Your task to perform on an android device: add a contact in the contacts app Image 0: 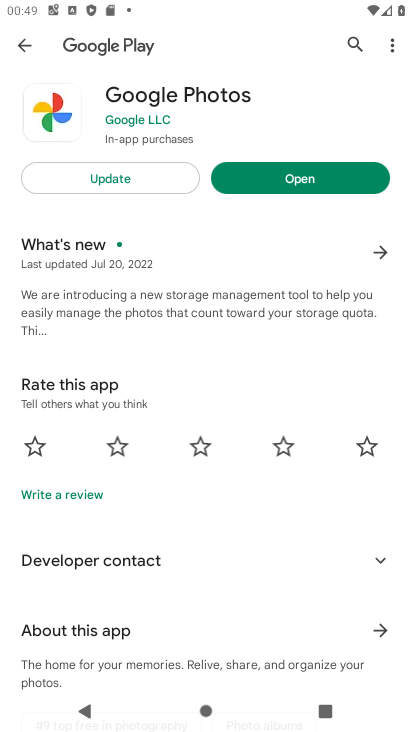
Step 0: press home button
Your task to perform on an android device: add a contact in the contacts app Image 1: 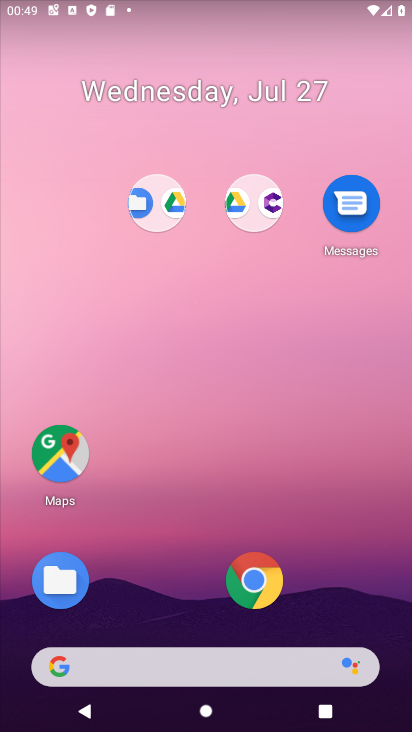
Step 1: drag from (157, 552) to (169, 75)
Your task to perform on an android device: add a contact in the contacts app Image 2: 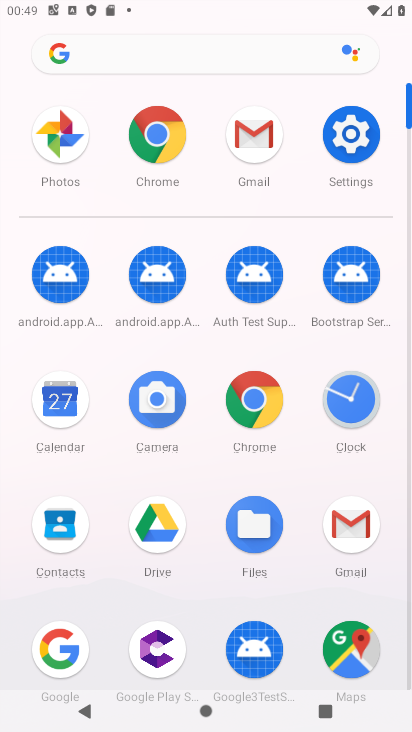
Step 2: click (80, 542)
Your task to perform on an android device: add a contact in the contacts app Image 3: 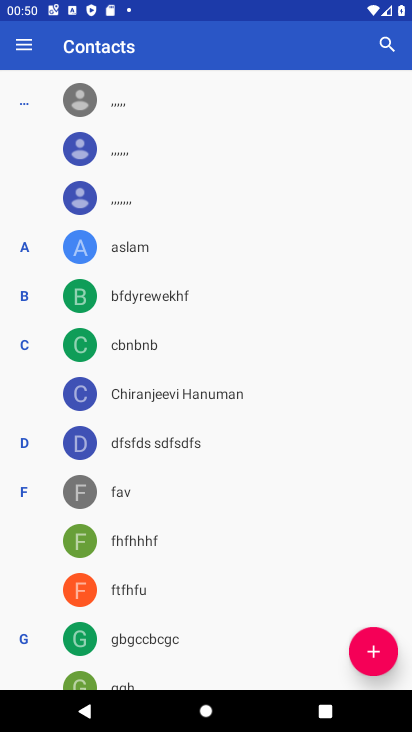
Step 3: click (384, 640)
Your task to perform on an android device: add a contact in the contacts app Image 4: 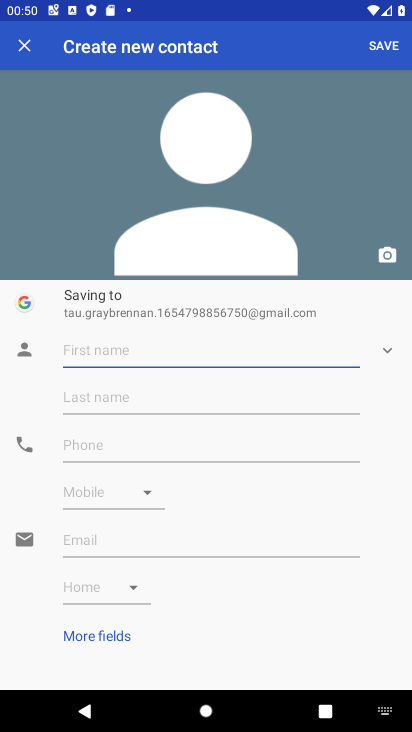
Step 4: type "iuhgfdx"
Your task to perform on an android device: add a contact in the contacts app Image 5: 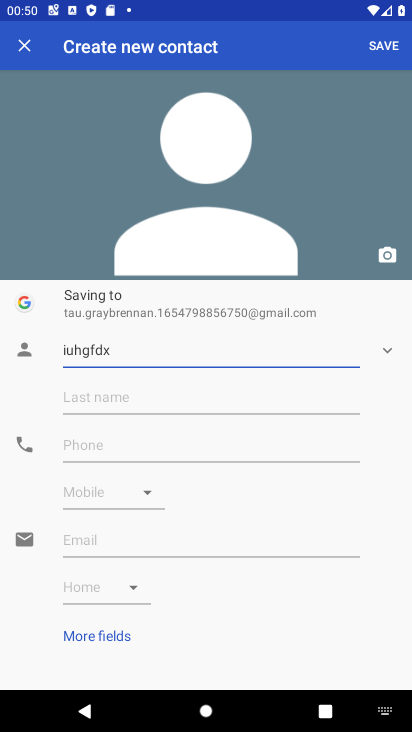
Step 5: click (242, 452)
Your task to perform on an android device: add a contact in the contacts app Image 6: 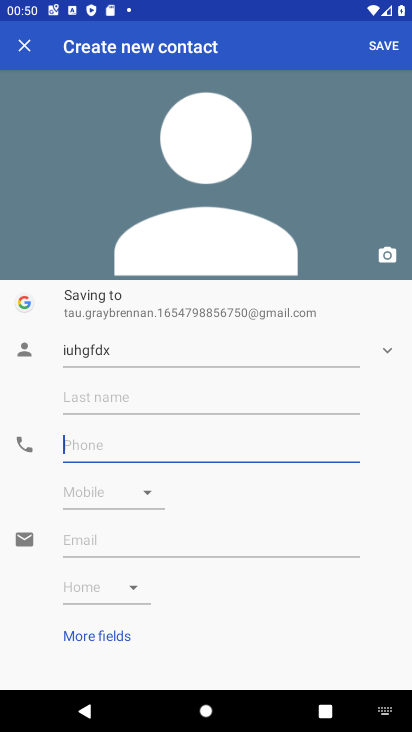
Step 6: type "9876543234567"
Your task to perform on an android device: add a contact in the contacts app Image 7: 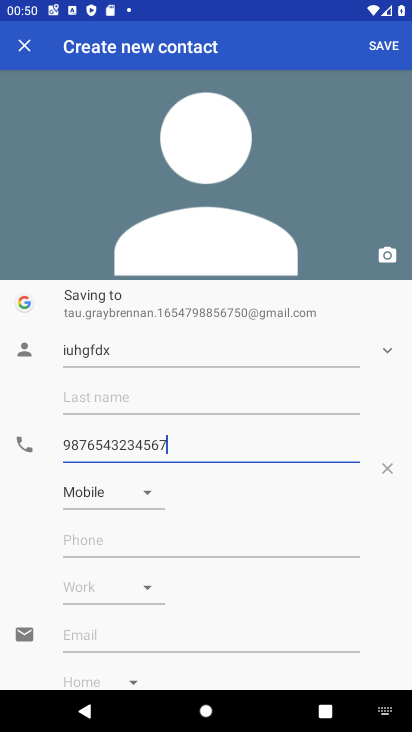
Step 7: click (392, 48)
Your task to perform on an android device: add a contact in the contacts app Image 8: 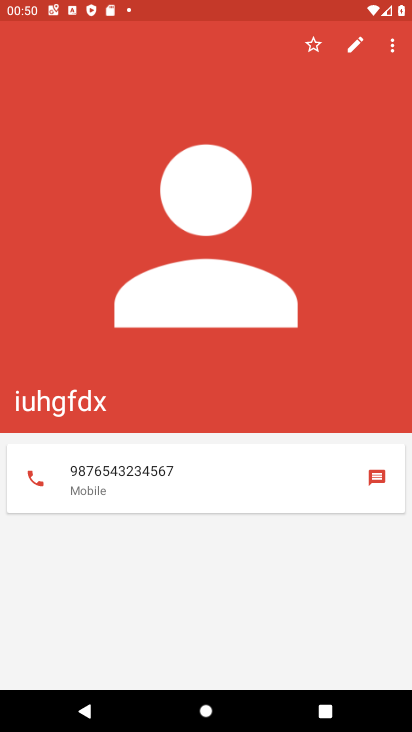
Step 8: task complete